Your task to perform on an android device: Open Maps and search for coffee Image 0: 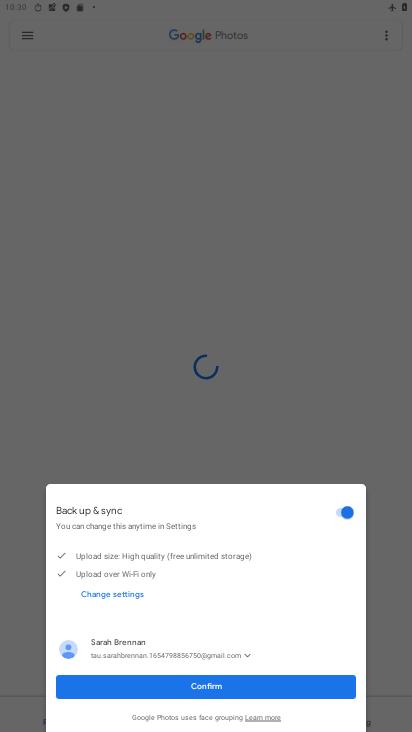
Step 0: press home button
Your task to perform on an android device: Open Maps and search for coffee Image 1: 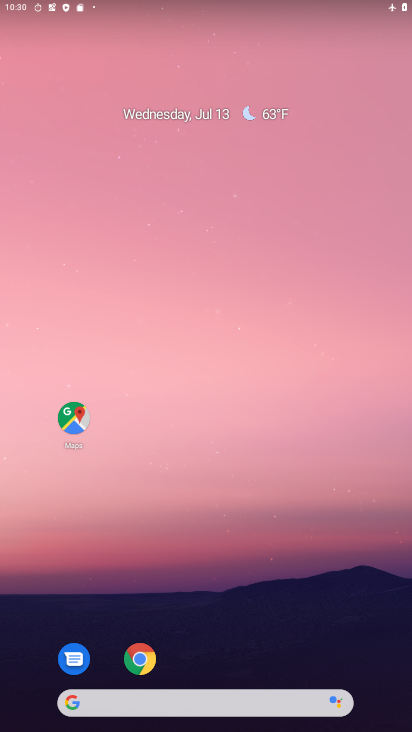
Step 1: drag from (261, 469) to (316, 71)
Your task to perform on an android device: Open Maps and search for coffee Image 2: 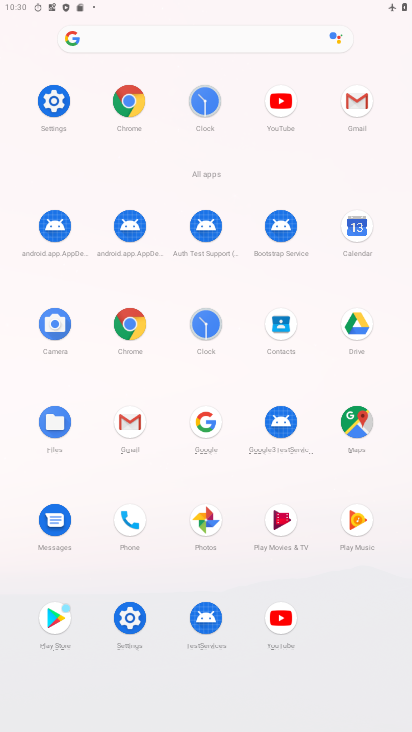
Step 2: click (360, 422)
Your task to perform on an android device: Open Maps and search for coffee Image 3: 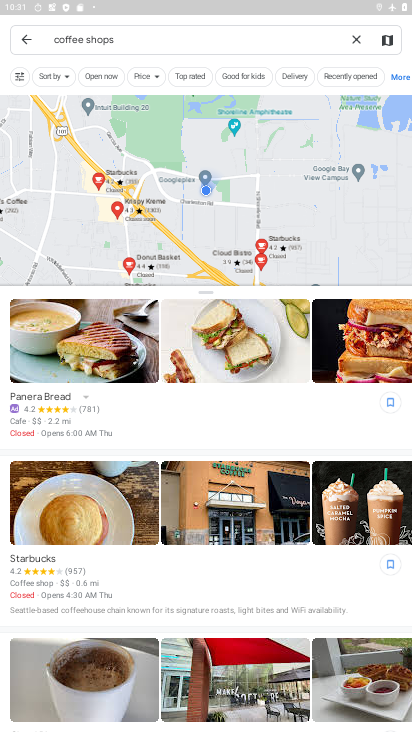
Step 3: click (237, 38)
Your task to perform on an android device: Open Maps and search for coffee Image 4: 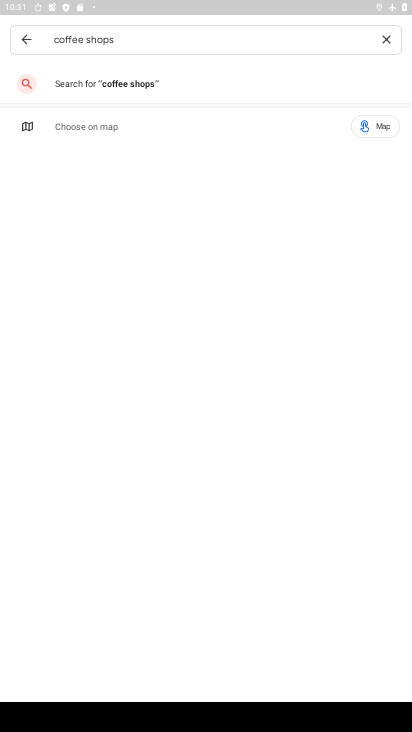
Step 4: click (386, 42)
Your task to perform on an android device: Open Maps and search for coffee Image 5: 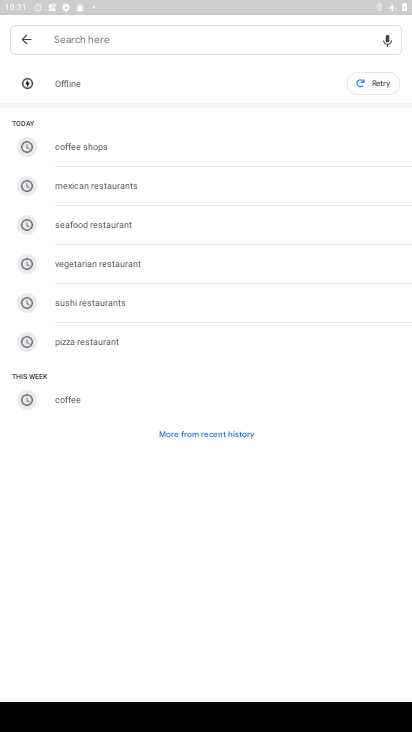
Step 5: click (70, 403)
Your task to perform on an android device: Open Maps and search for coffee Image 6: 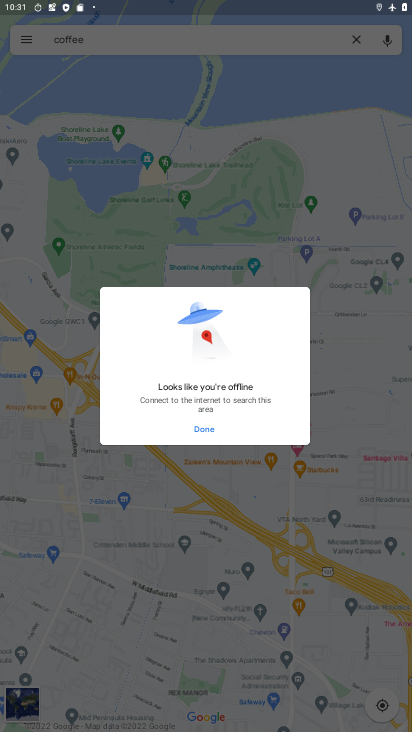
Step 6: task complete